Your task to perform on an android device: add a contact Image 0: 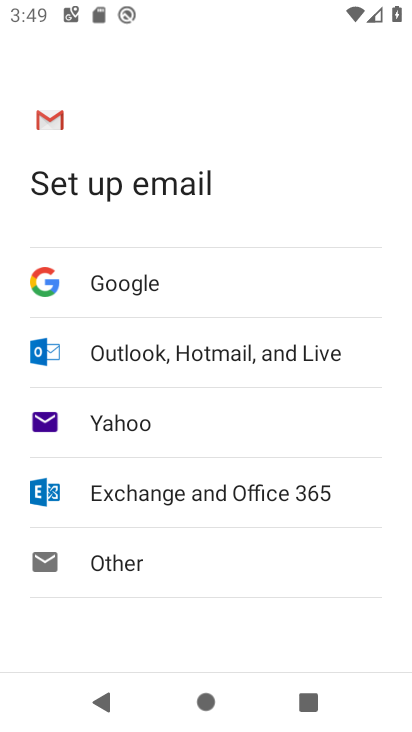
Step 0: press home button
Your task to perform on an android device: add a contact Image 1: 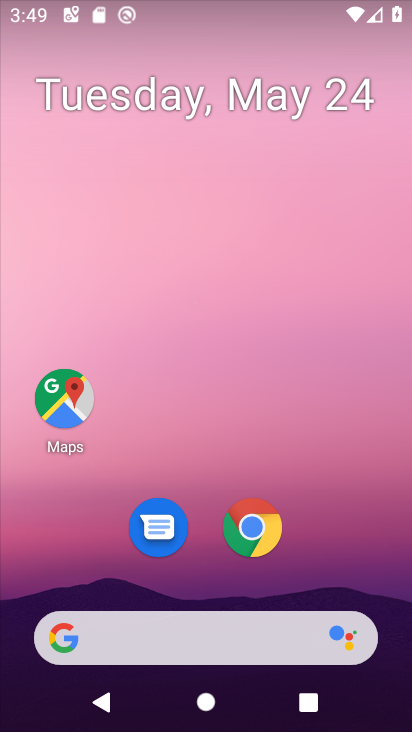
Step 1: drag from (319, 270) to (323, 23)
Your task to perform on an android device: add a contact Image 2: 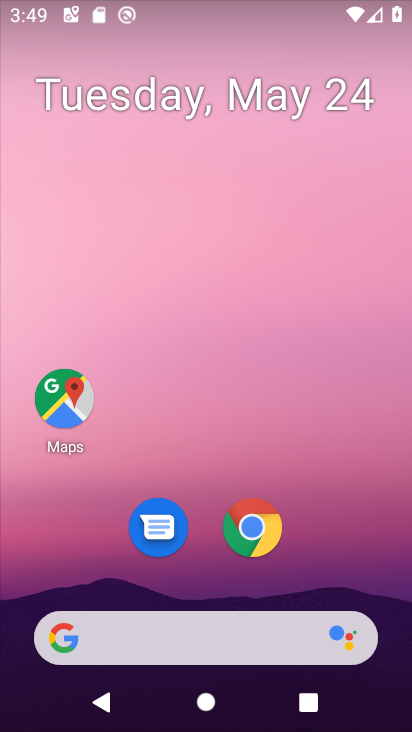
Step 2: drag from (314, 577) to (235, 10)
Your task to perform on an android device: add a contact Image 3: 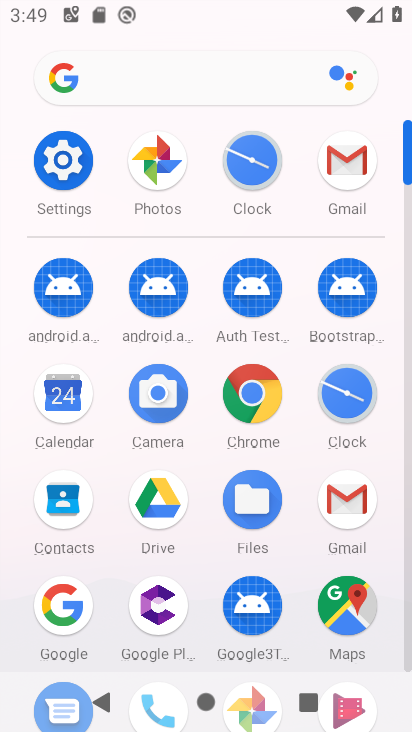
Step 3: click (58, 507)
Your task to perform on an android device: add a contact Image 4: 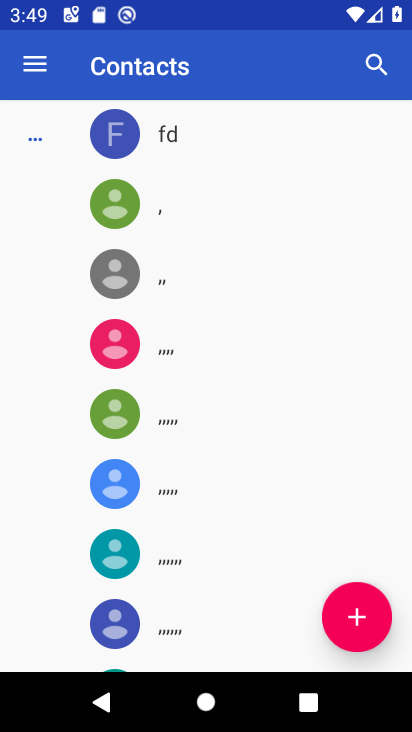
Step 4: click (352, 619)
Your task to perform on an android device: add a contact Image 5: 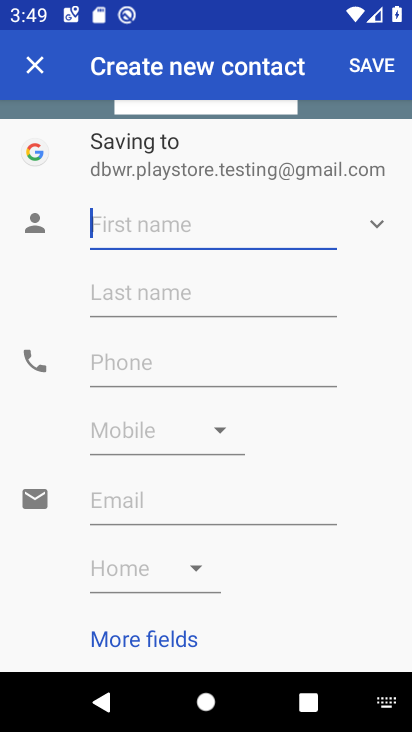
Step 5: type "don"
Your task to perform on an android device: add a contact Image 6: 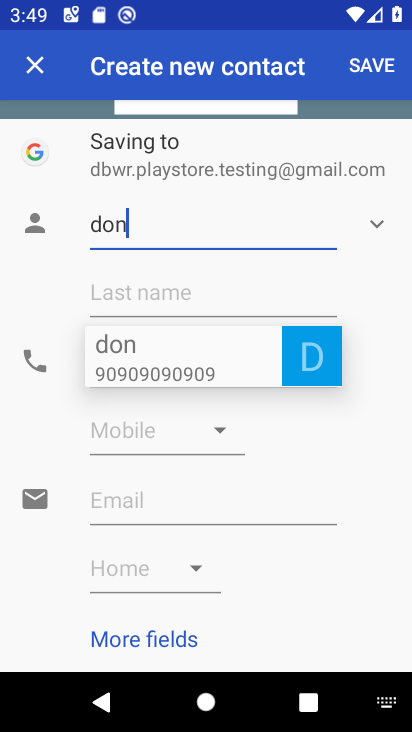
Step 6: click (381, 372)
Your task to perform on an android device: add a contact Image 7: 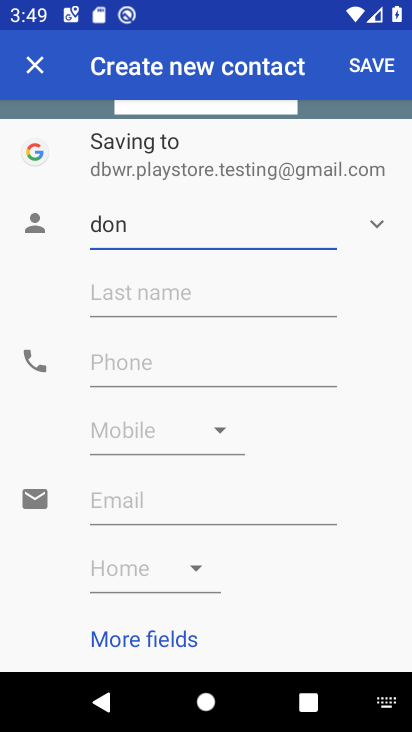
Step 7: click (91, 381)
Your task to perform on an android device: add a contact Image 8: 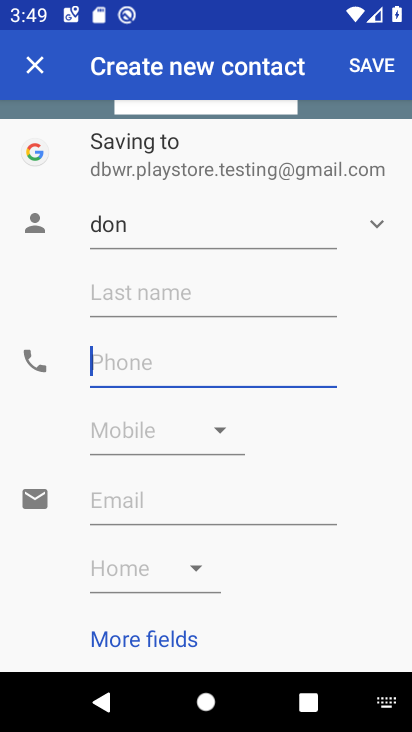
Step 8: type "988765544"
Your task to perform on an android device: add a contact Image 9: 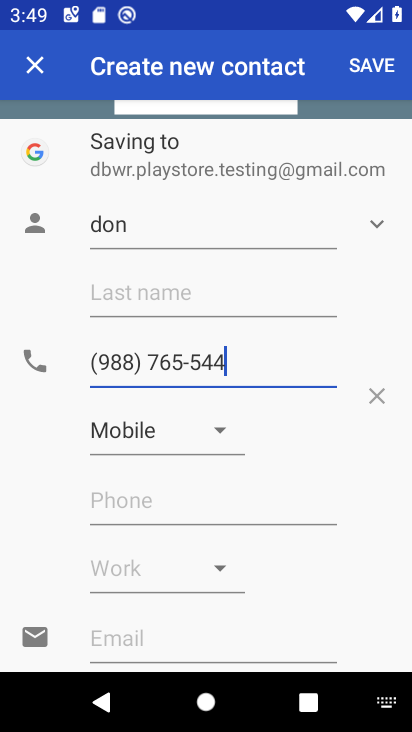
Step 9: click (366, 68)
Your task to perform on an android device: add a contact Image 10: 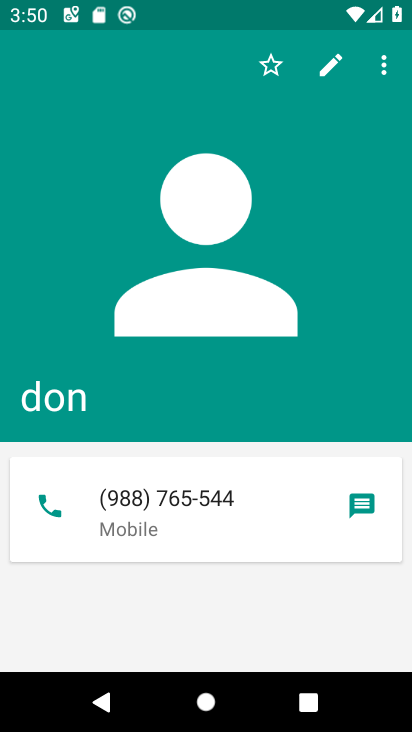
Step 10: task complete